Your task to perform on an android device: Show me the alarms in the clock app Image 0: 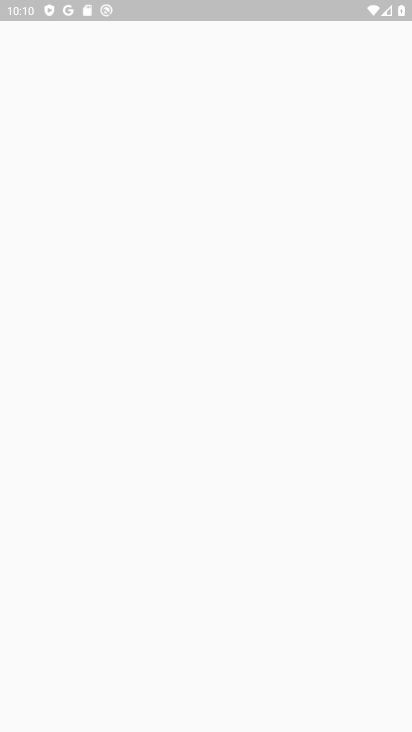
Step 0: press home button
Your task to perform on an android device: Show me the alarms in the clock app Image 1: 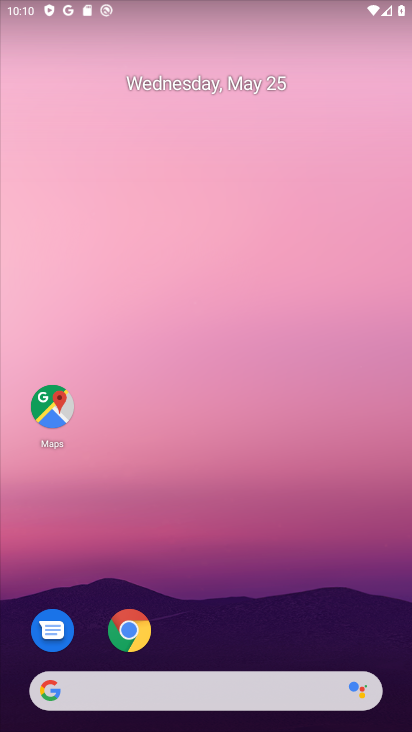
Step 1: drag from (287, 636) to (266, 34)
Your task to perform on an android device: Show me the alarms in the clock app Image 2: 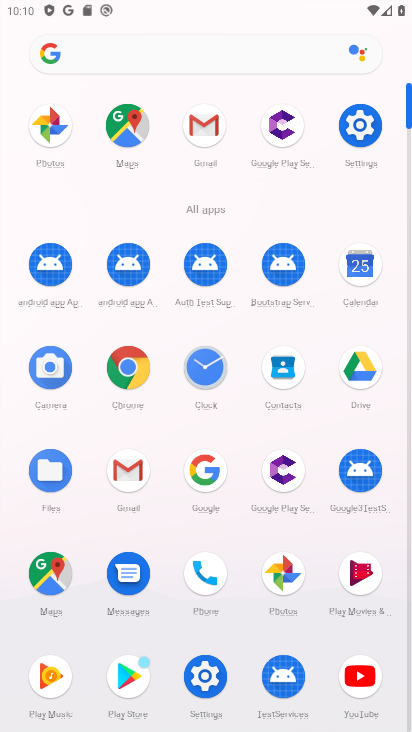
Step 2: click (217, 370)
Your task to perform on an android device: Show me the alarms in the clock app Image 3: 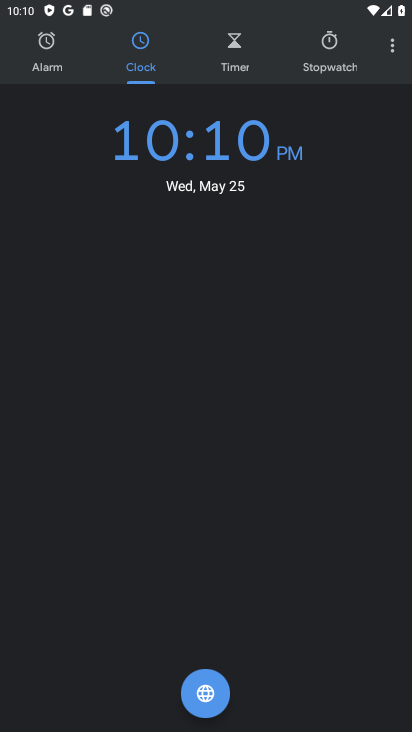
Step 3: click (35, 51)
Your task to perform on an android device: Show me the alarms in the clock app Image 4: 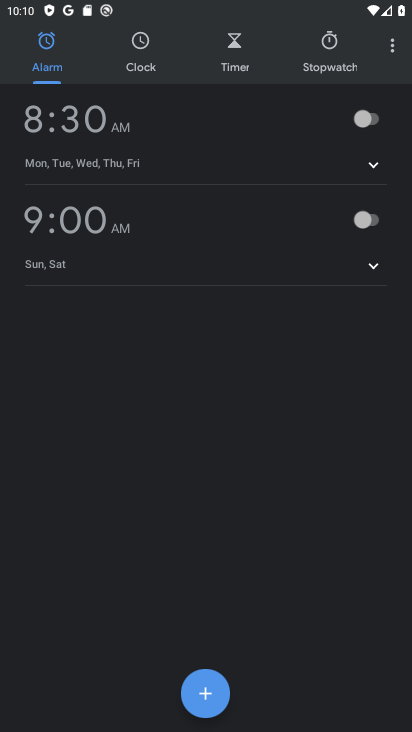
Step 4: task complete